Your task to perform on an android device: What is the price of a 12' ladder at Lowes? Image 0: 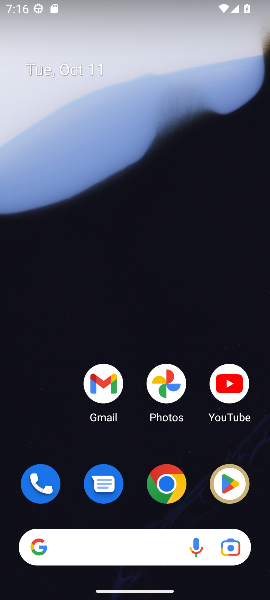
Step 0: drag from (63, 527) to (151, 14)
Your task to perform on an android device: What is the price of a 12' ladder at Lowes? Image 1: 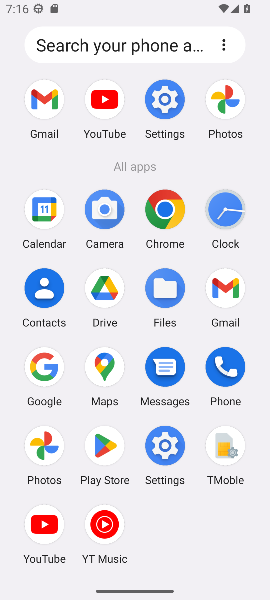
Step 1: click (153, 222)
Your task to perform on an android device: What is the price of a 12' ladder at Lowes? Image 2: 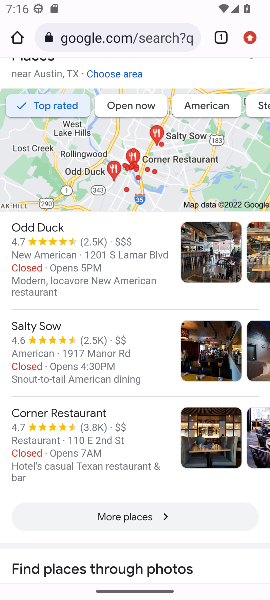
Step 2: click (99, 41)
Your task to perform on an android device: What is the price of a 12' ladder at Lowes? Image 3: 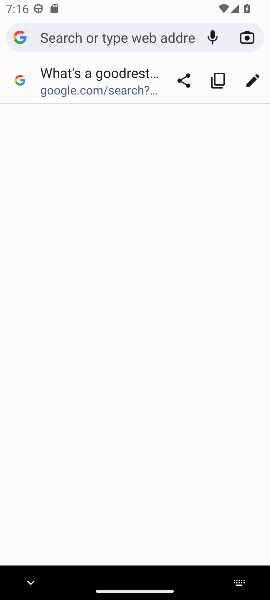
Step 3: type "What is the price of a 12' ladder at Lowes?"
Your task to perform on an android device: What is the price of a 12' ladder at Lowes? Image 4: 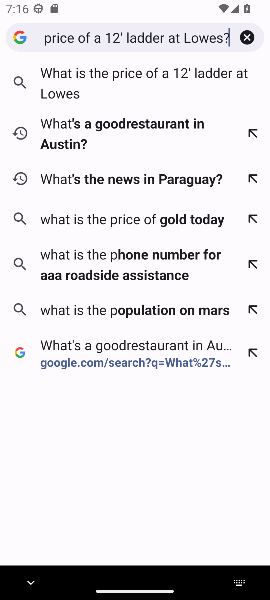
Step 4: press enter
Your task to perform on an android device: What is the price of a 12' ladder at Lowes? Image 5: 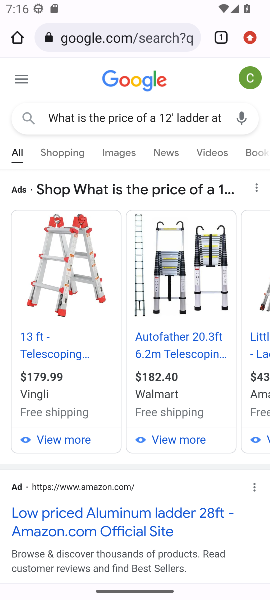
Step 5: task complete